Your task to perform on an android device: toggle javascript in the chrome app Image 0: 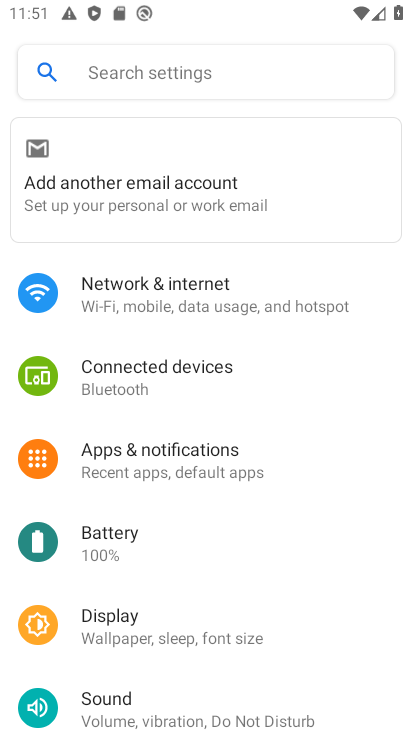
Step 0: press home button
Your task to perform on an android device: toggle javascript in the chrome app Image 1: 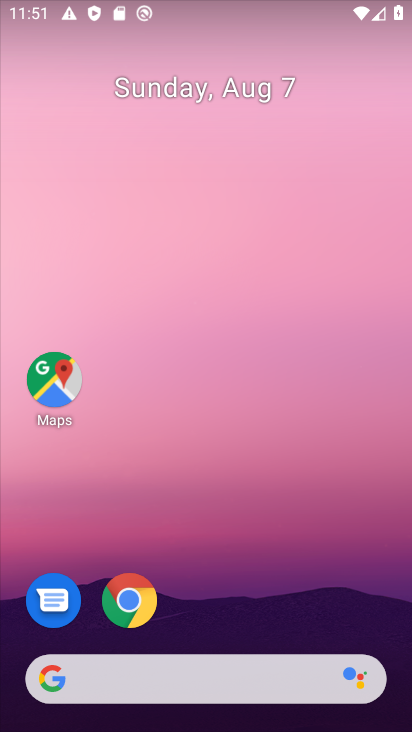
Step 1: drag from (241, 616) to (230, 548)
Your task to perform on an android device: toggle javascript in the chrome app Image 2: 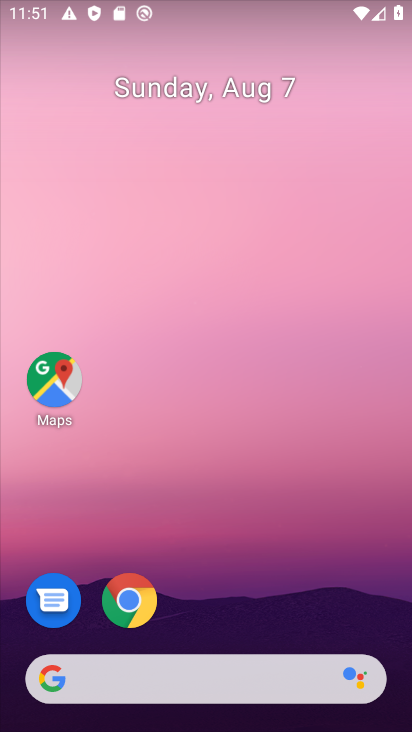
Step 2: click (144, 607)
Your task to perform on an android device: toggle javascript in the chrome app Image 3: 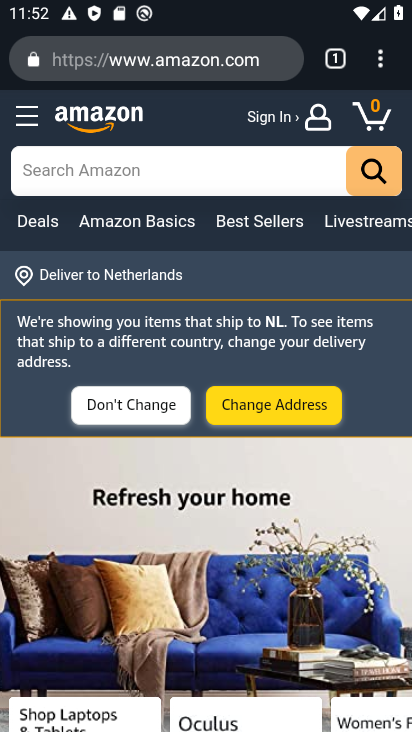
Step 3: click (377, 65)
Your task to perform on an android device: toggle javascript in the chrome app Image 4: 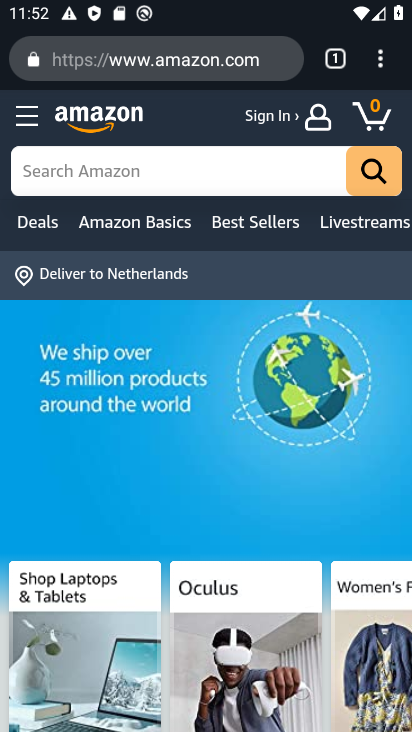
Step 4: click (382, 70)
Your task to perform on an android device: toggle javascript in the chrome app Image 5: 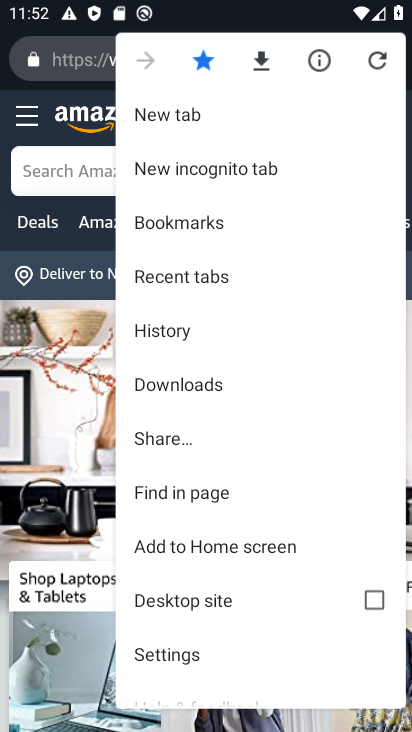
Step 5: click (173, 661)
Your task to perform on an android device: toggle javascript in the chrome app Image 6: 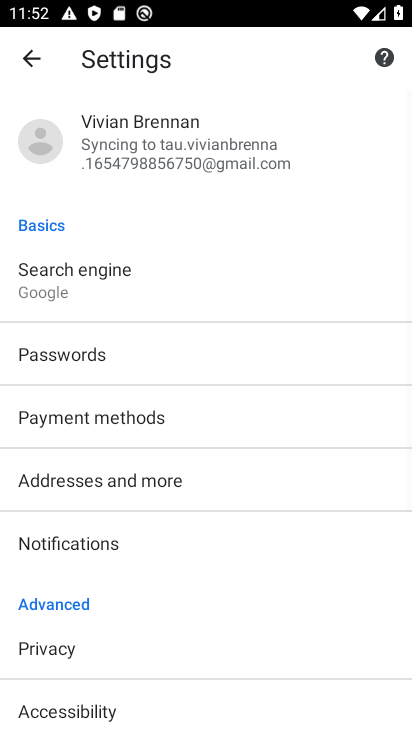
Step 6: drag from (116, 576) to (204, 250)
Your task to perform on an android device: toggle javascript in the chrome app Image 7: 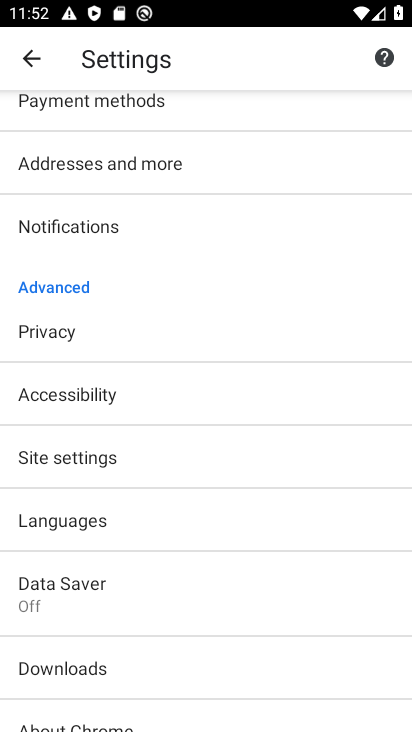
Step 7: click (110, 457)
Your task to perform on an android device: toggle javascript in the chrome app Image 8: 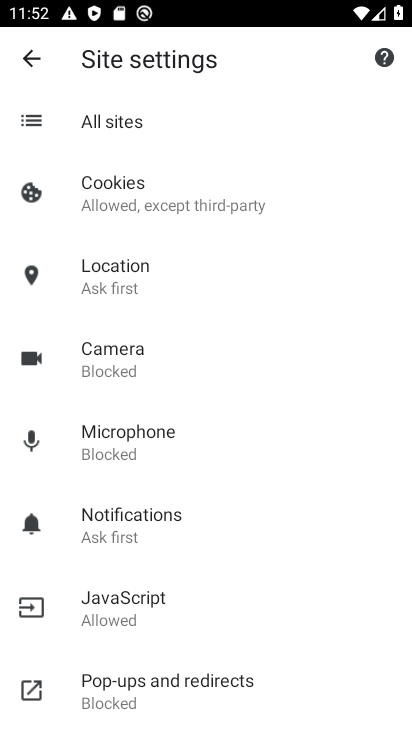
Step 8: click (135, 607)
Your task to perform on an android device: toggle javascript in the chrome app Image 9: 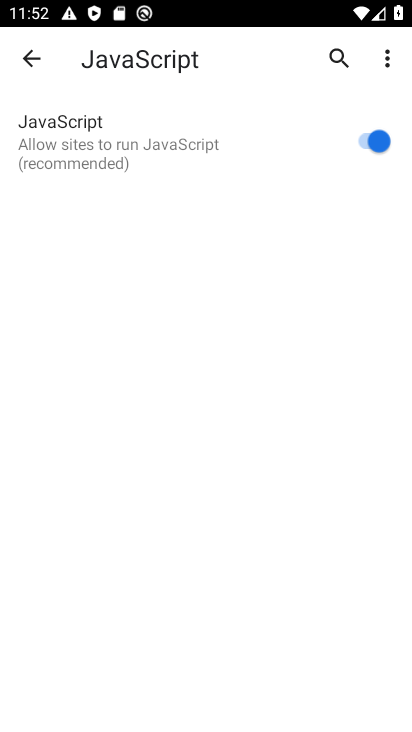
Step 9: click (365, 135)
Your task to perform on an android device: toggle javascript in the chrome app Image 10: 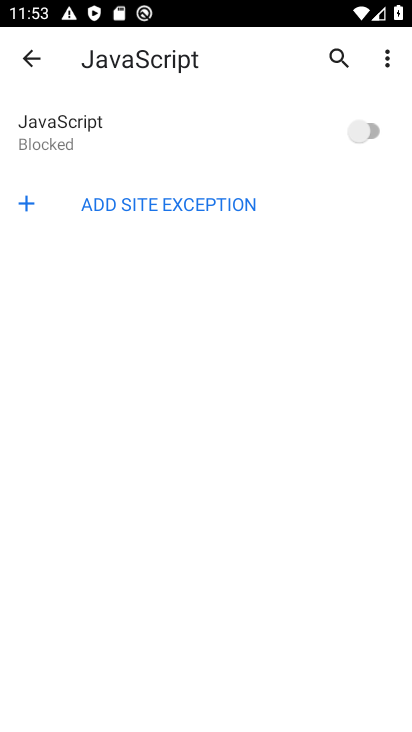
Step 10: task complete